Your task to perform on an android device: turn off translation in the chrome app Image 0: 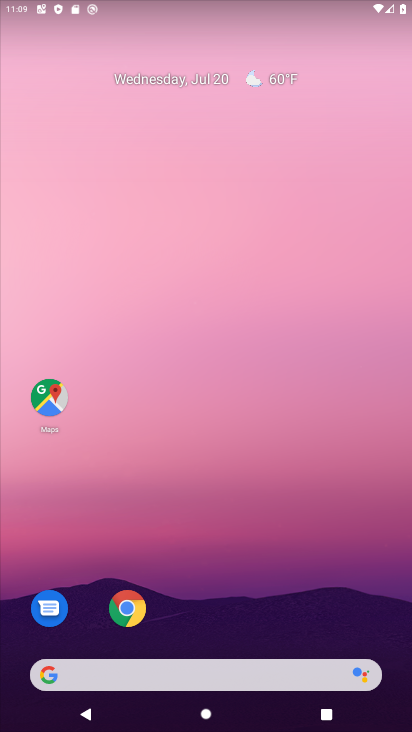
Step 0: drag from (258, 593) to (165, 0)
Your task to perform on an android device: turn off translation in the chrome app Image 1: 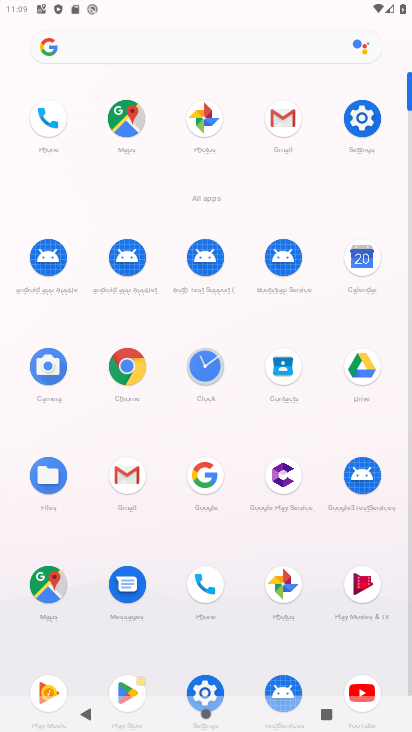
Step 1: click (131, 367)
Your task to perform on an android device: turn off translation in the chrome app Image 2: 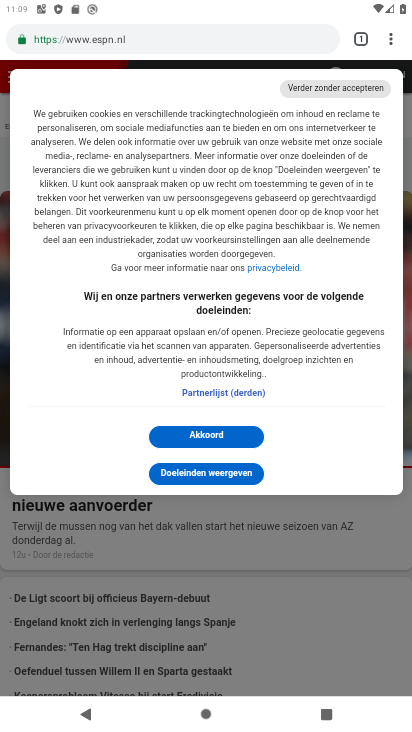
Step 2: click (392, 31)
Your task to perform on an android device: turn off translation in the chrome app Image 3: 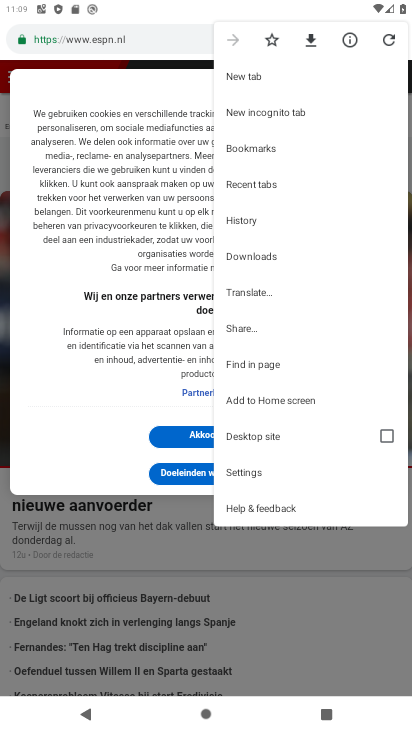
Step 3: click (249, 476)
Your task to perform on an android device: turn off translation in the chrome app Image 4: 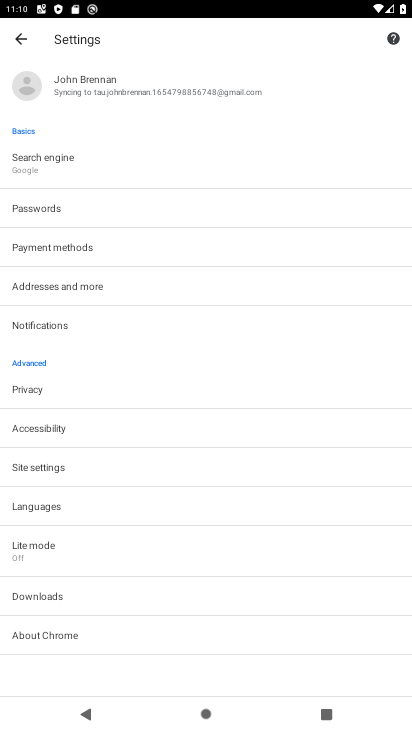
Step 4: click (65, 513)
Your task to perform on an android device: turn off translation in the chrome app Image 5: 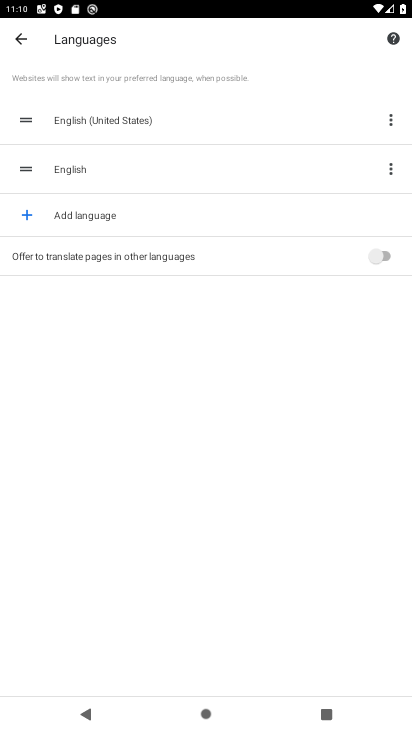
Step 5: task complete